Your task to perform on an android device: clear all cookies in the chrome app Image 0: 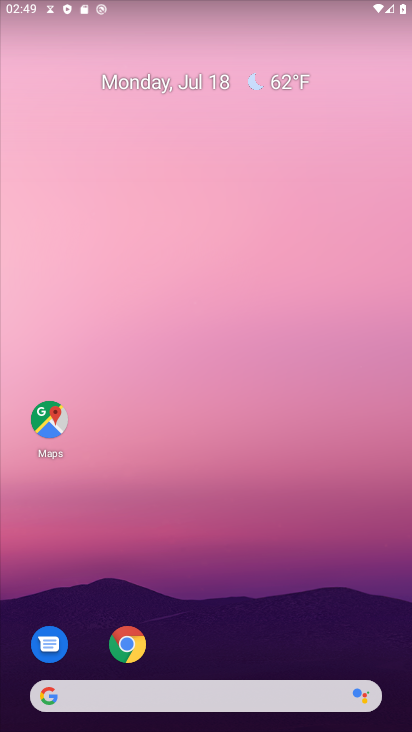
Step 0: drag from (230, 645) to (157, 234)
Your task to perform on an android device: clear all cookies in the chrome app Image 1: 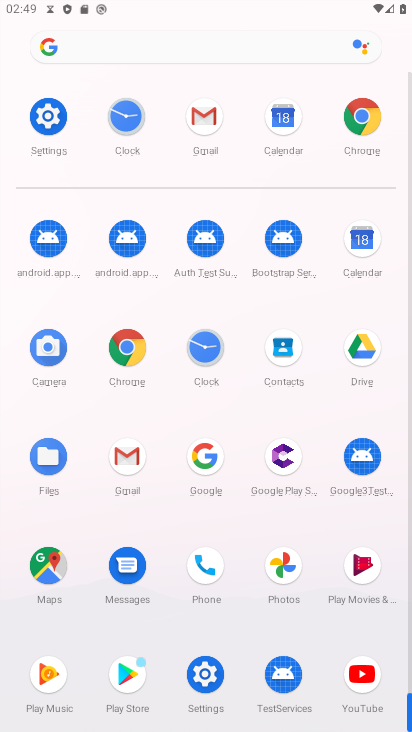
Step 1: click (337, 103)
Your task to perform on an android device: clear all cookies in the chrome app Image 2: 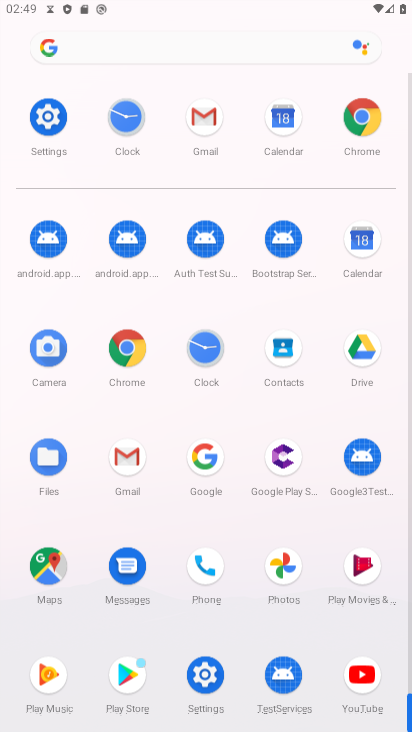
Step 2: click (353, 122)
Your task to perform on an android device: clear all cookies in the chrome app Image 3: 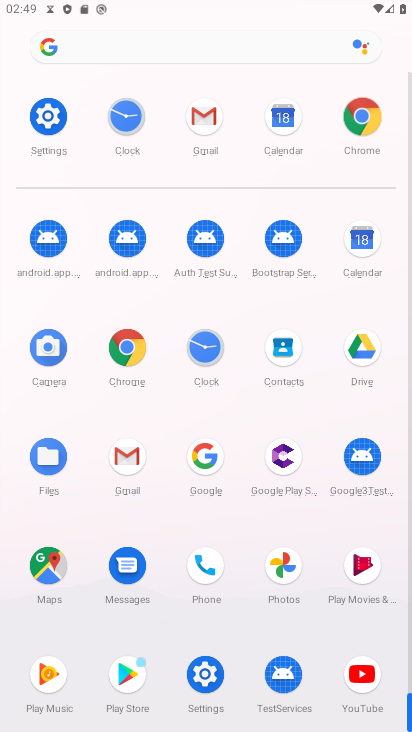
Step 3: click (354, 122)
Your task to perform on an android device: clear all cookies in the chrome app Image 4: 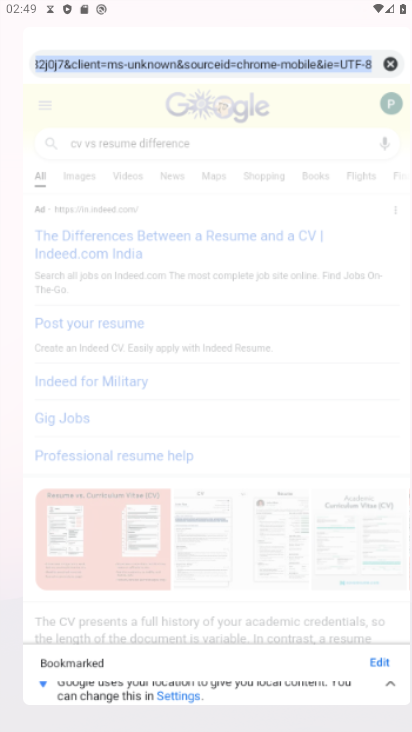
Step 4: click (355, 124)
Your task to perform on an android device: clear all cookies in the chrome app Image 5: 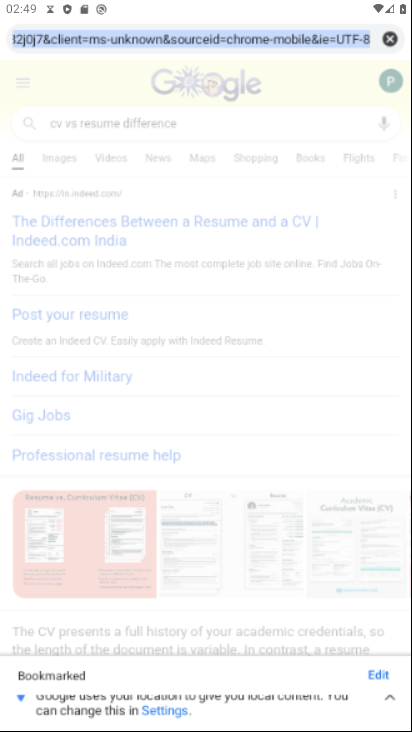
Step 5: click (357, 125)
Your task to perform on an android device: clear all cookies in the chrome app Image 6: 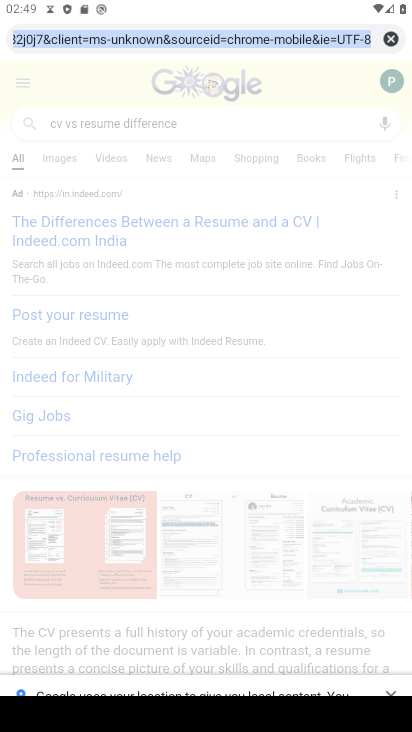
Step 6: drag from (392, 40) to (384, 118)
Your task to perform on an android device: clear all cookies in the chrome app Image 7: 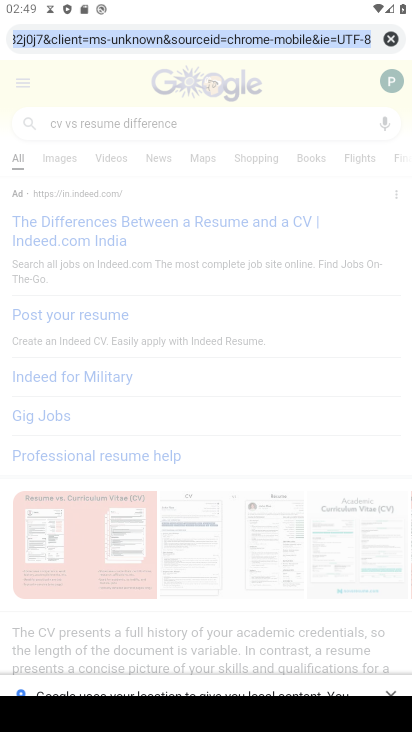
Step 7: click (383, 41)
Your task to perform on an android device: clear all cookies in the chrome app Image 8: 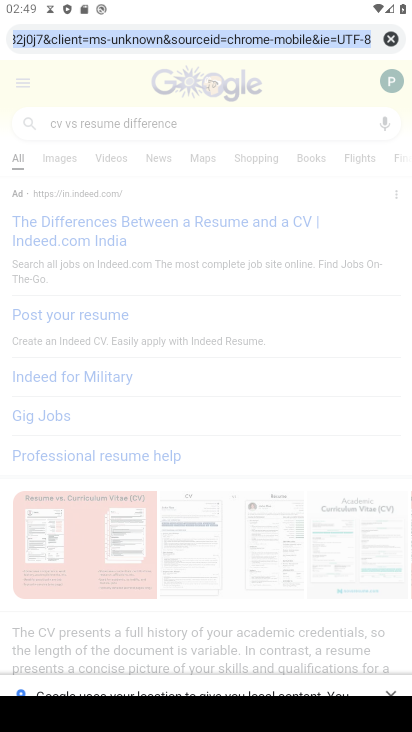
Step 8: drag from (383, 41) to (323, 354)
Your task to perform on an android device: clear all cookies in the chrome app Image 9: 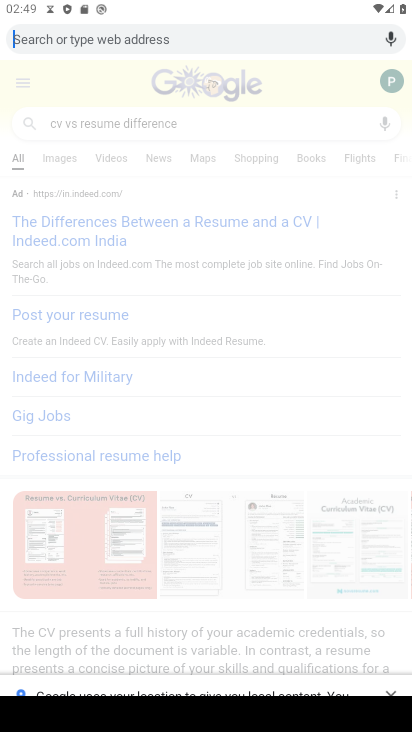
Step 9: click (385, 43)
Your task to perform on an android device: clear all cookies in the chrome app Image 10: 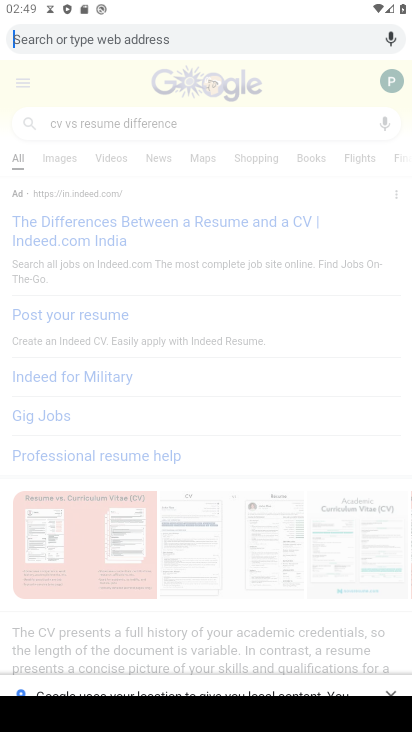
Step 10: click (386, 43)
Your task to perform on an android device: clear all cookies in the chrome app Image 11: 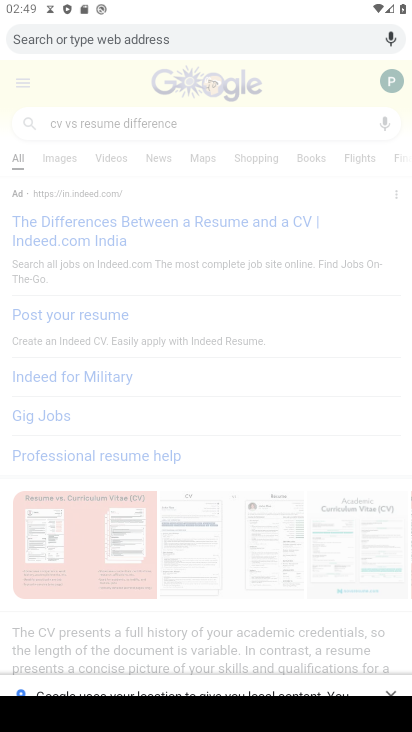
Step 11: click (386, 43)
Your task to perform on an android device: clear all cookies in the chrome app Image 12: 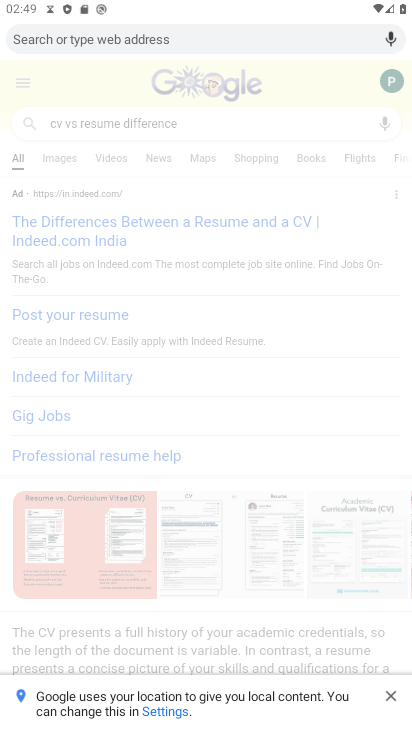
Step 12: click (386, 43)
Your task to perform on an android device: clear all cookies in the chrome app Image 13: 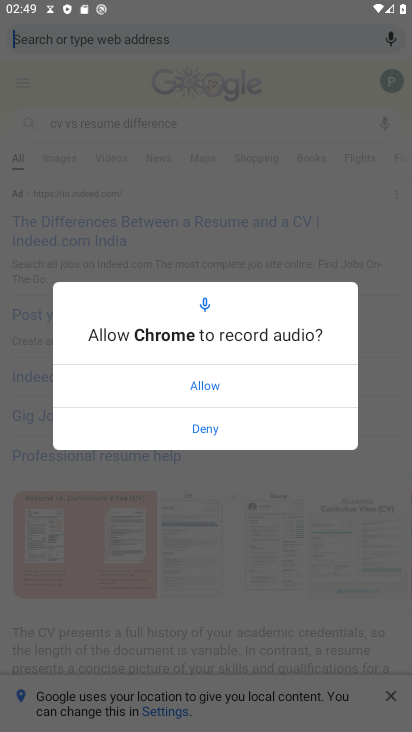
Step 13: click (204, 392)
Your task to perform on an android device: clear all cookies in the chrome app Image 14: 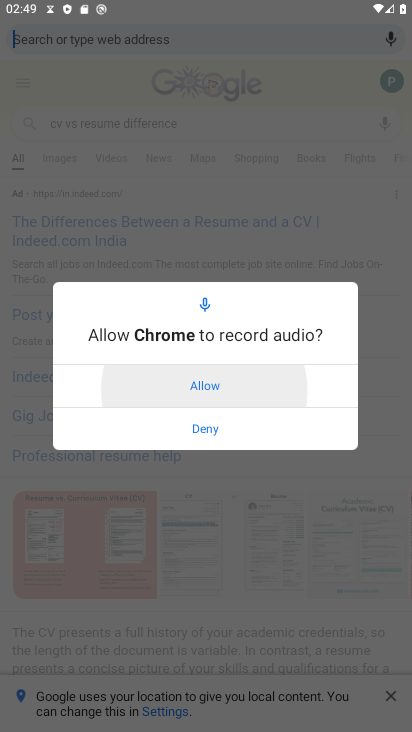
Step 14: click (208, 390)
Your task to perform on an android device: clear all cookies in the chrome app Image 15: 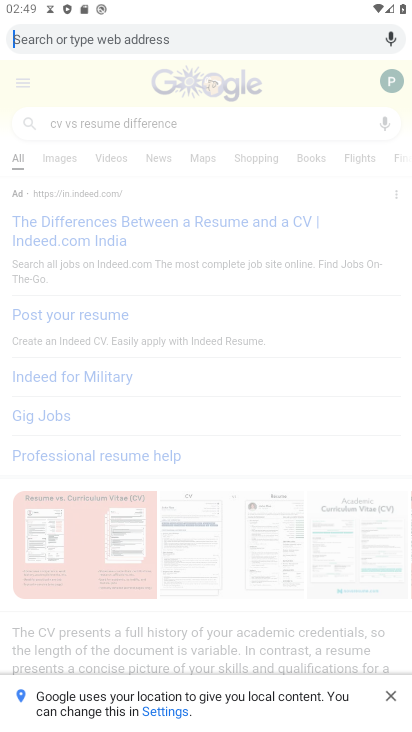
Step 15: click (210, 386)
Your task to perform on an android device: clear all cookies in the chrome app Image 16: 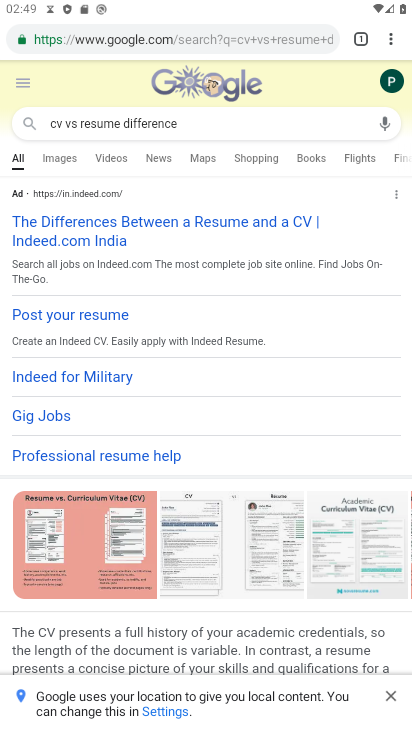
Step 16: press back button
Your task to perform on an android device: clear all cookies in the chrome app Image 17: 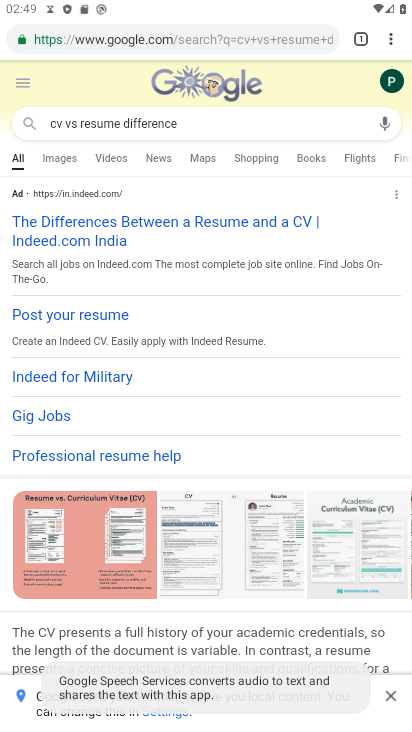
Step 17: drag from (384, 40) to (318, 325)
Your task to perform on an android device: clear all cookies in the chrome app Image 18: 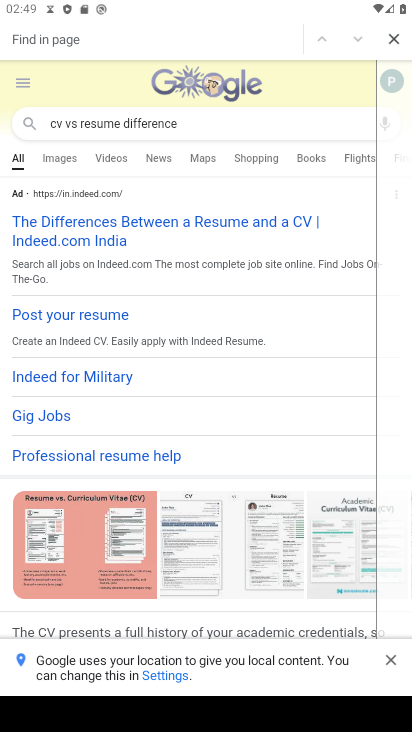
Step 18: click (391, 35)
Your task to perform on an android device: clear all cookies in the chrome app Image 19: 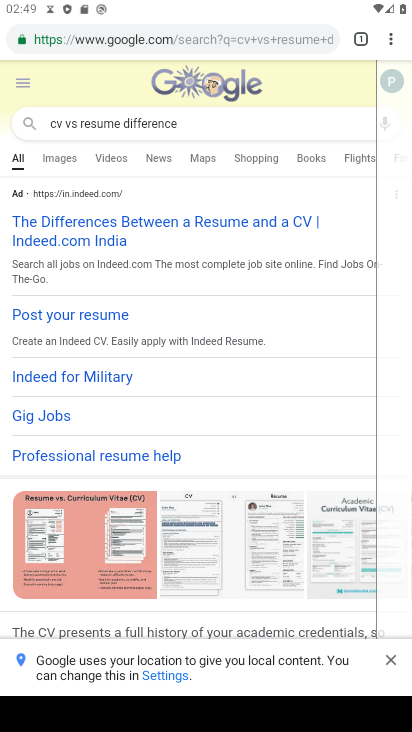
Step 19: click (389, 36)
Your task to perform on an android device: clear all cookies in the chrome app Image 20: 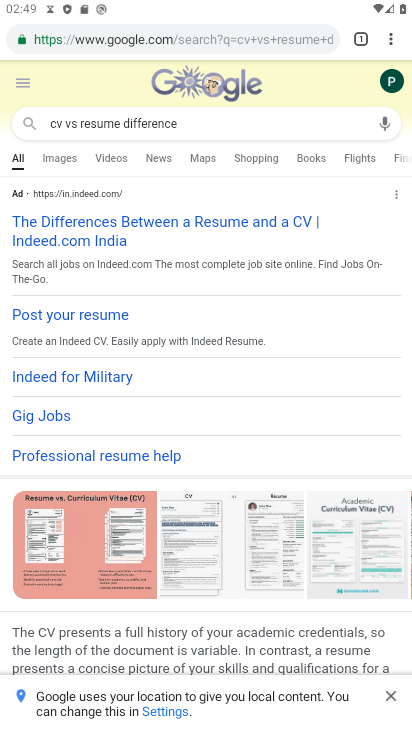
Step 20: drag from (389, 36) to (249, 437)
Your task to perform on an android device: clear all cookies in the chrome app Image 21: 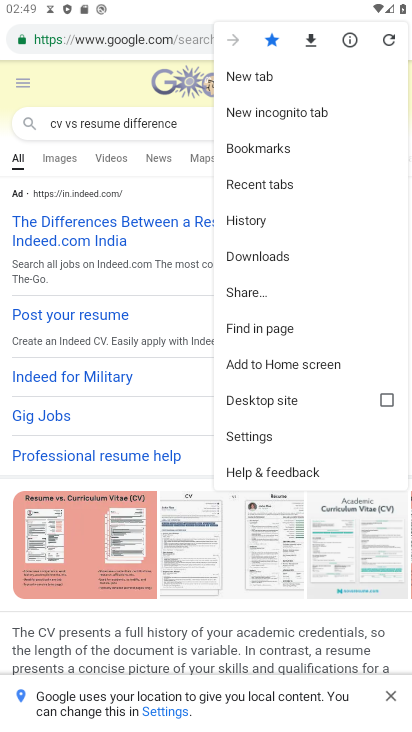
Step 21: click (249, 438)
Your task to perform on an android device: clear all cookies in the chrome app Image 22: 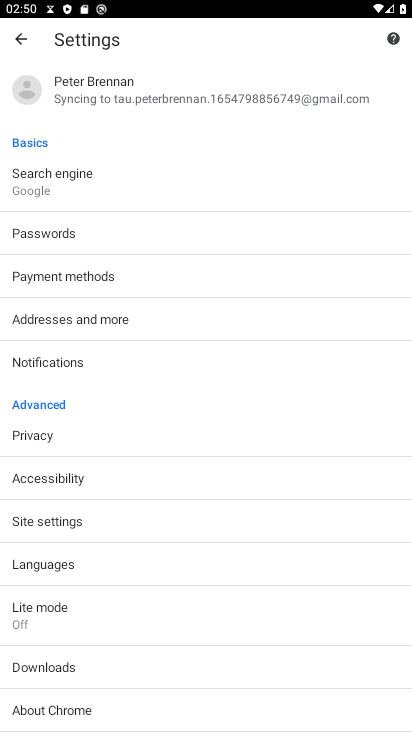
Step 22: click (38, 526)
Your task to perform on an android device: clear all cookies in the chrome app Image 23: 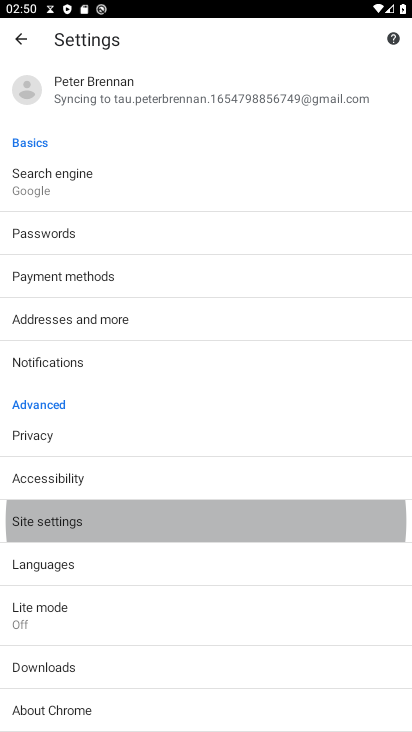
Step 23: click (38, 526)
Your task to perform on an android device: clear all cookies in the chrome app Image 24: 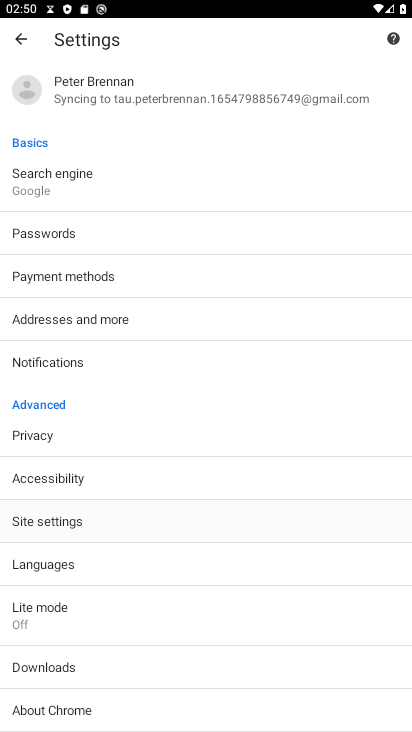
Step 24: click (38, 526)
Your task to perform on an android device: clear all cookies in the chrome app Image 25: 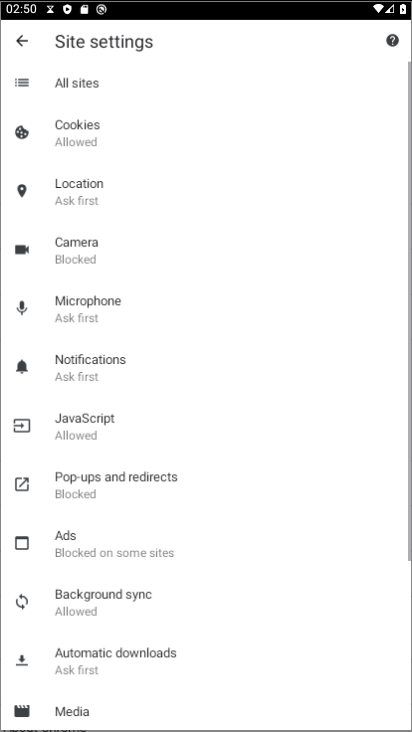
Step 25: click (38, 526)
Your task to perform on an android device: clear all cookies in the chrome app Image 26: 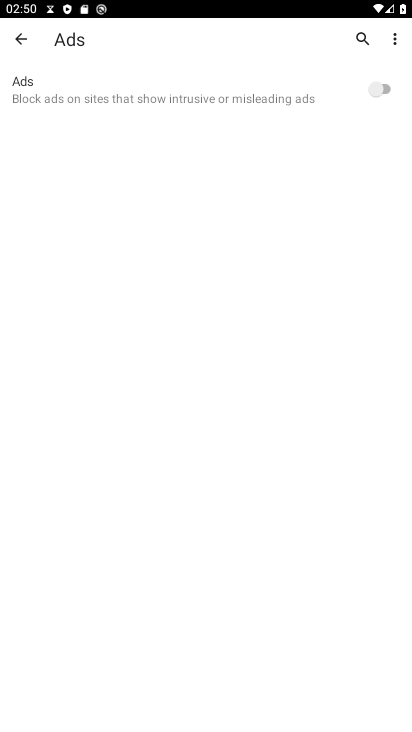
Step 26: click (20, 41)
Your task to perform on an android device: clear all cookies in the chrome app Image 27: 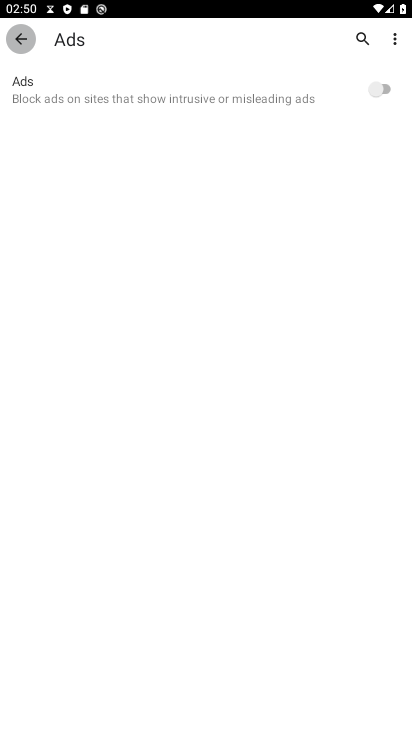
Step 27: click (11, 42)
Your task to perform on an android device: clear all cookies in the chrome app Image 28: 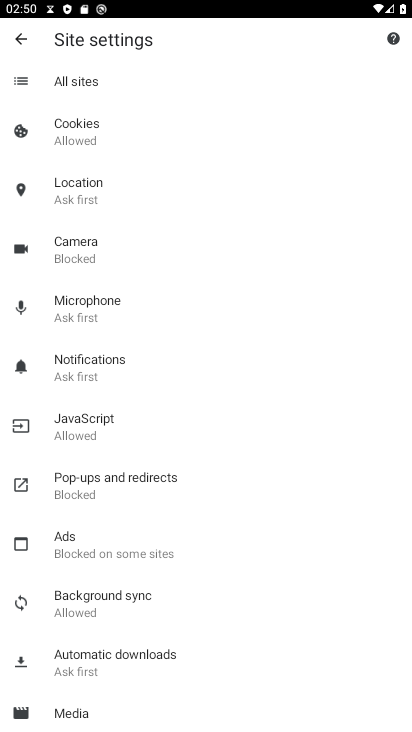
Step 28: click (78, 121)
Your task to perform on an android device: clear all cookies in the chrome app Image 29: 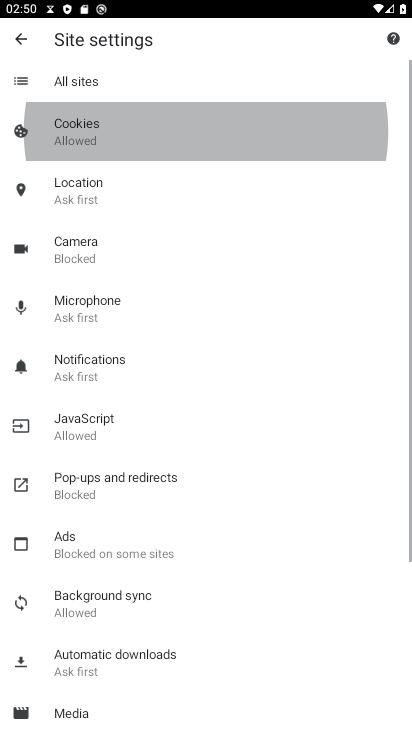
Step 29: click (77, 125)
Your task to perform on an android device: clear all cookies in the chrome app Image 30: 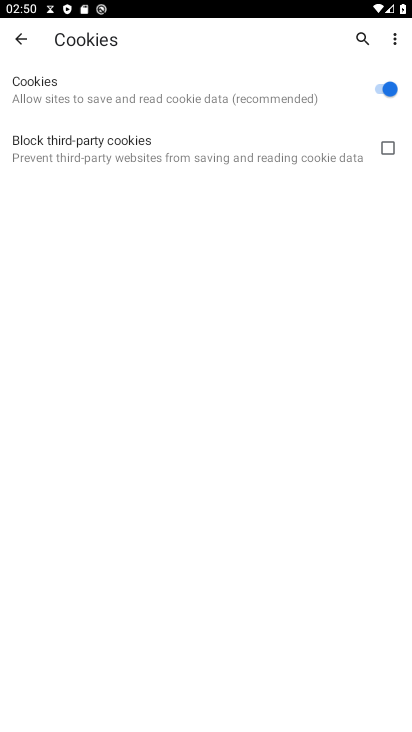
Step 30: click (383, 93)
Your task to perform on an android device: clear all cookies in the chrome app Image 31: 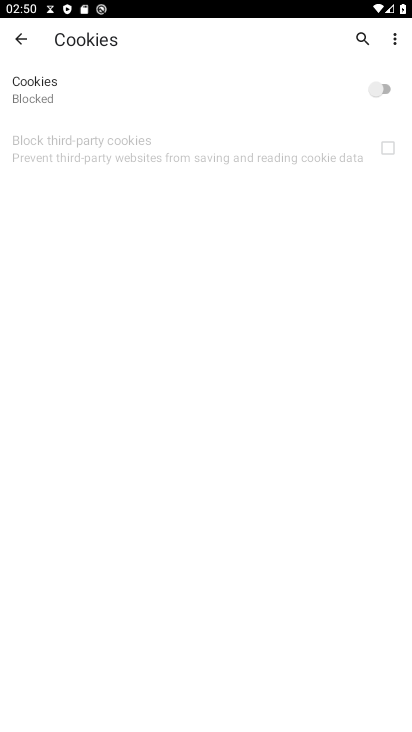
Step 31: task complete